Your task to perform on an android device: turn off priority inbox in the gmail app Image 0: 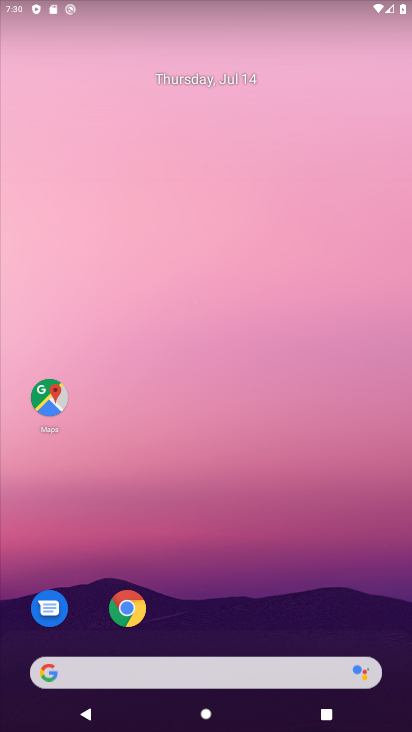
Step 0: drag from (276, 573) to (200, 217)
Your task to perform on an android device: turn off priority inbox in the gmail app Image 1: 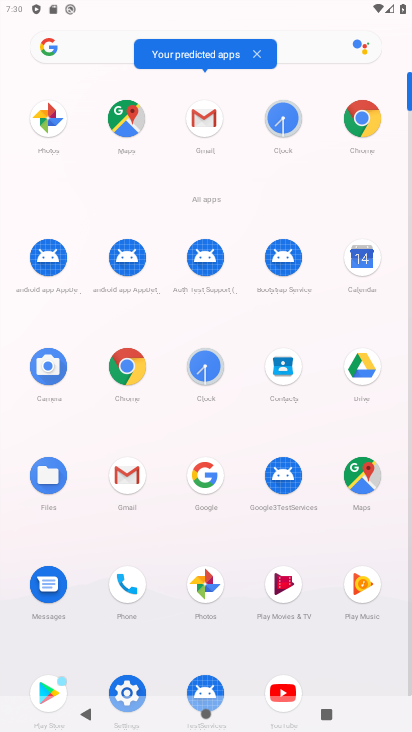
Step 1: click (201, 121)
Your task to perform on an android device: turn off priority inbox in the gmail app Image 2: 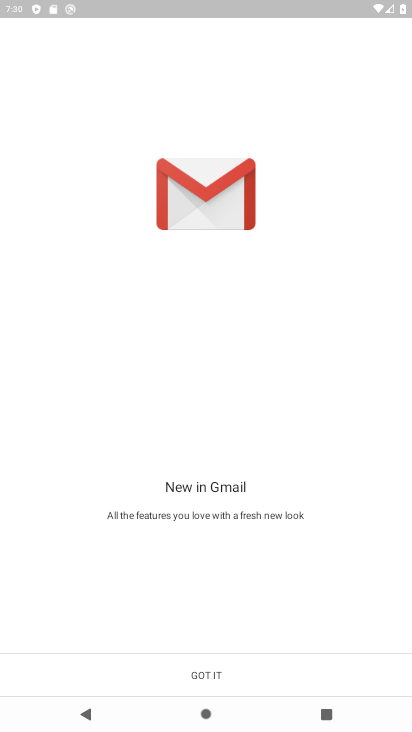
Step 2: click (197, 669)
Your task to perform on an android device: turn off priority inbox in the gmail app Image 3: 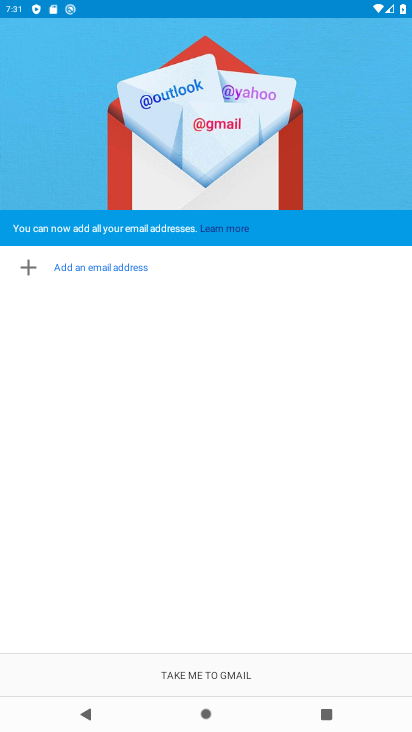
Step 3: click (218, 673)
Your task to perform on an android device: turn off priority inbox in the gmail app Image 4: 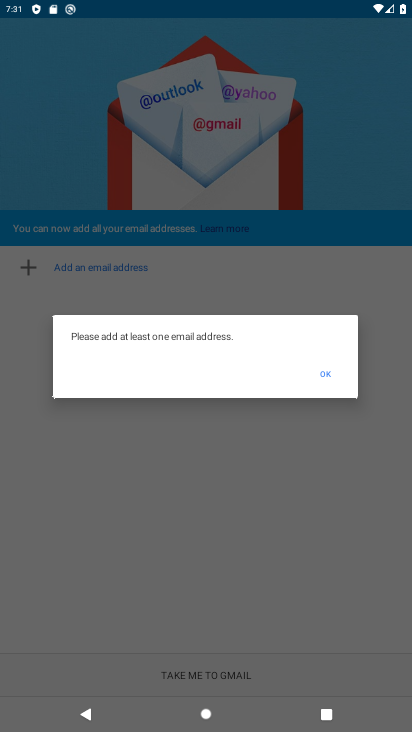
Step 4: click (327, 372)
Your task to perform on an android device: turn off priority inbox in the gmail app Image 5: 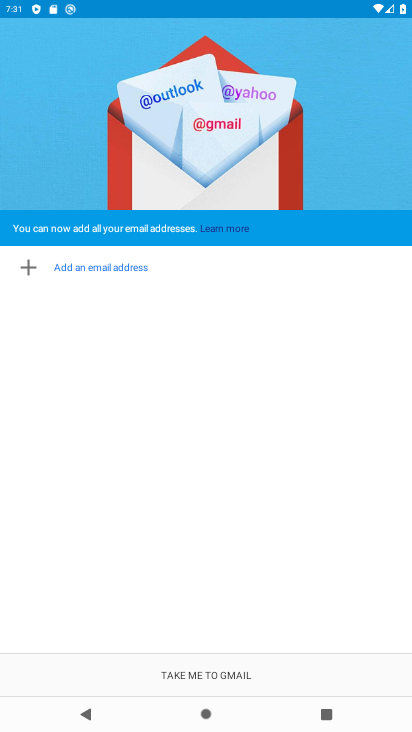
Step 5: task complete